Your task to perform on an android device: add a contact Image 0: 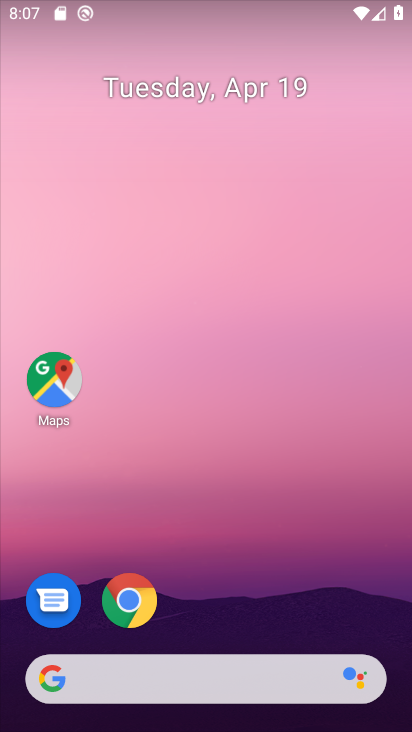
Step 0: drag from (363, 594) to (359, 62)
Your task to perform on an android device: add a contact Image 1: 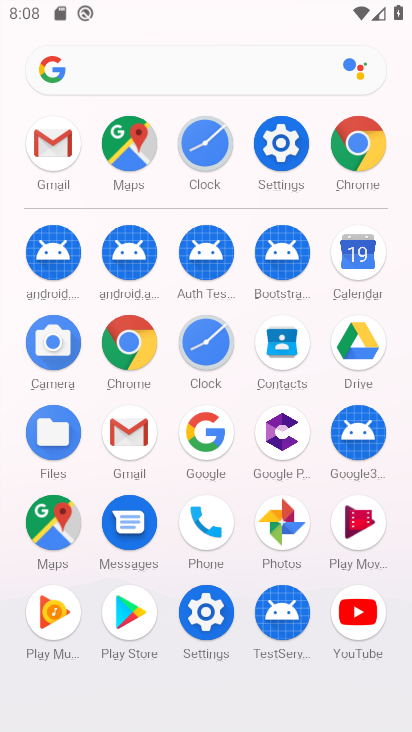
Step 1: click (292, 346)
Your task to perform on an android device: add a contact Image 2: 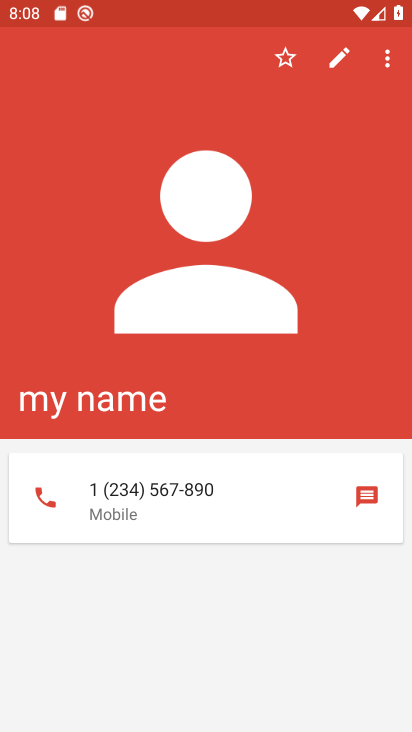
Step 2: press back button
Your task to perform on an android device: add a contact Image 3: 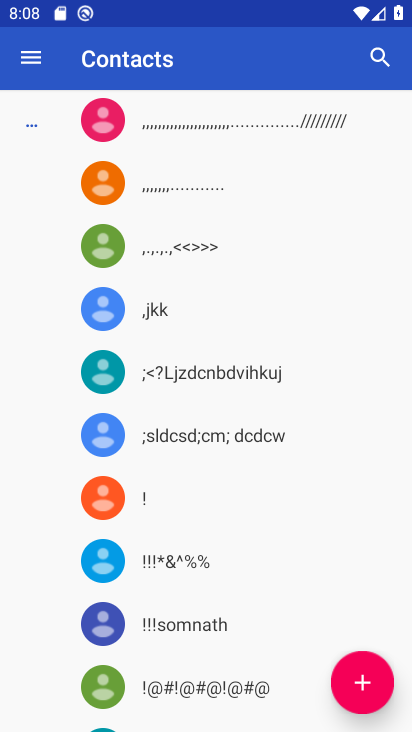
Step 3: click (382, 674)
Your task to perform on an android device: add a contact Image 4: 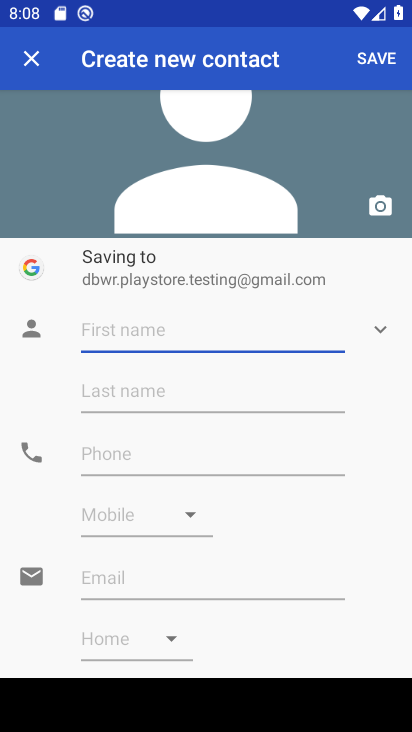
Step 4: type "lol"
Your task to perform on an android device: add a contact Image 5: 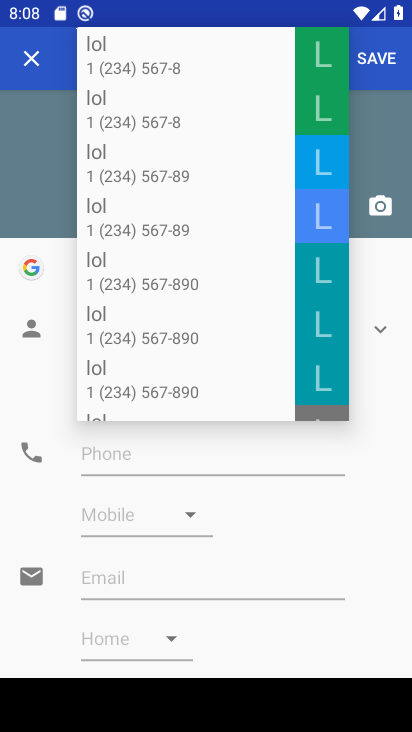
Step 5: click (266, 467)
Your task to perform on an android device: add a contact Image 6: 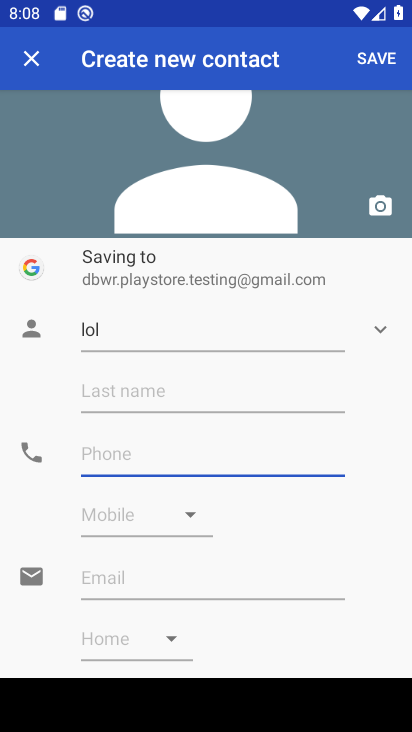
Step 6: type "1234567890"
Your task to perform on an android device: add a contact Image 7: 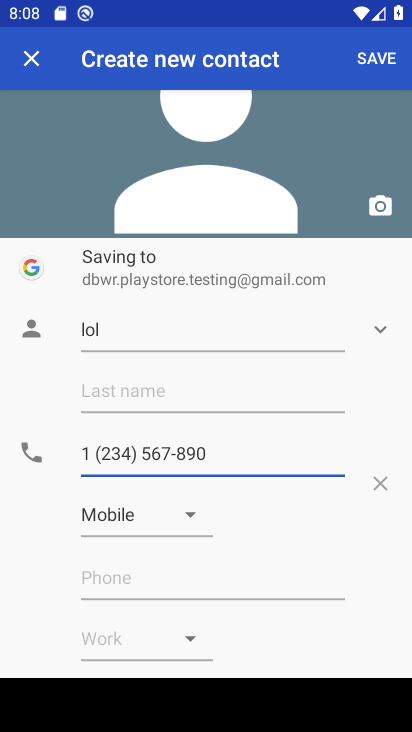
Step 7: click (377, 57)
Your task to perform on an android device: add a contact Image 8: 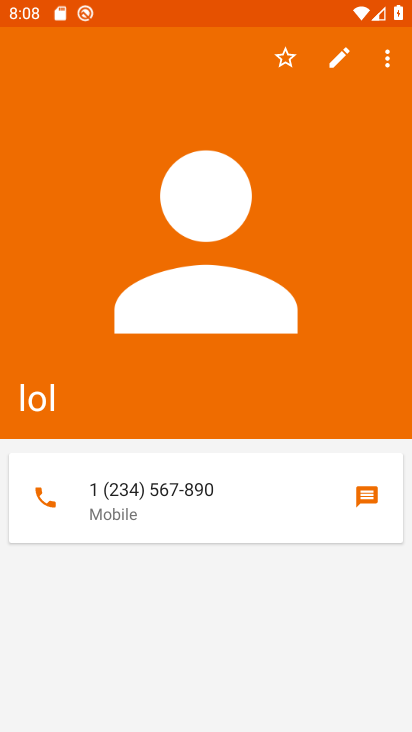
Step 8: task complete